Your task to perform on an android device: Open CNN.com Image 0: 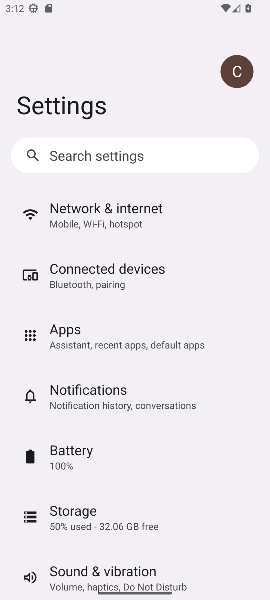
Step 0: press back button
Your task to perform on an android device: Open CNN.com Image 1: 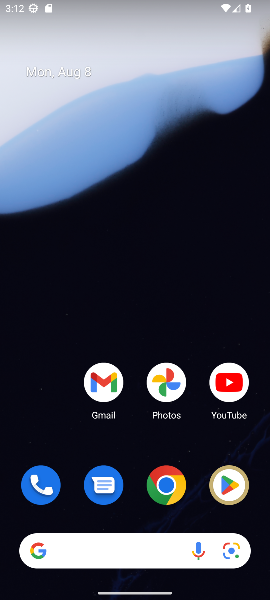
Step 1: drag from (131, 513) to (33, 186)
Your task to perform on an android device: Open CNN.com Image 2: 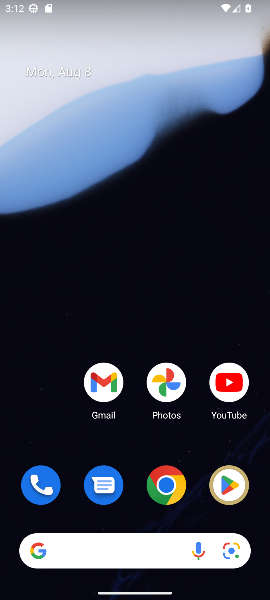
Step 2: drag from (162, 456) to (122, 44)
Your task to perform on an android device: Open CNN.com Image 3: 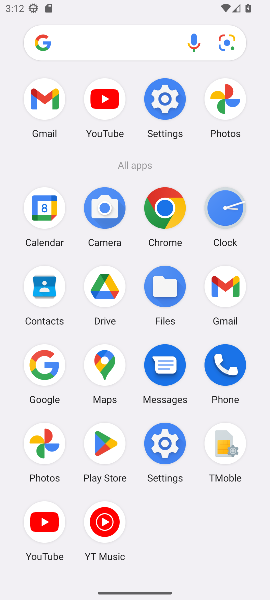
Step 3: click (170, 207)
Your task to perform on an android device: Open CNN.com Image 4: 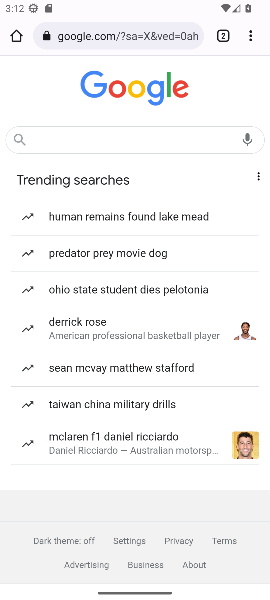
Step 4: click (65, 137)
Your task to perform on an android device: Open CNN.com Image 5: 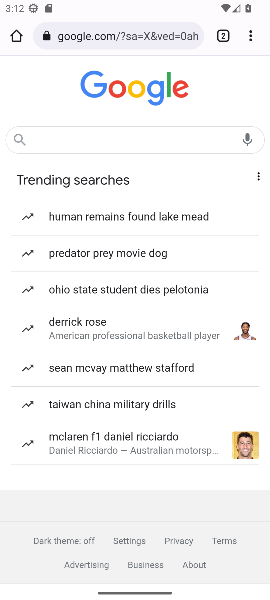
Step 5: click (65, 137)
Your task to perform on an android device: Open CNN.com Image 6: 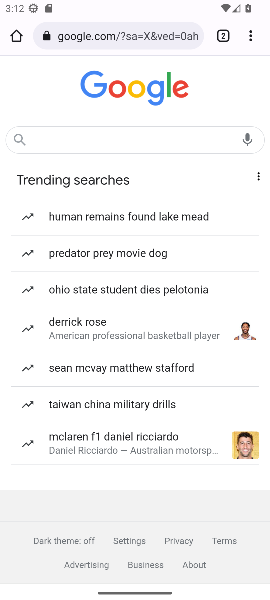
Step 6: click (65, 137)
Your task to perform on an android device: Open CNN.com Image 7: 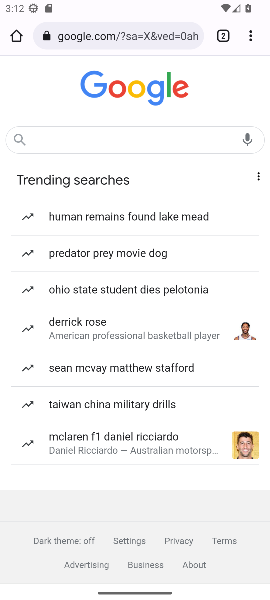
Step 7: click (65, 137)
Your task to perform on an android device: Open CNN.com Image 8: 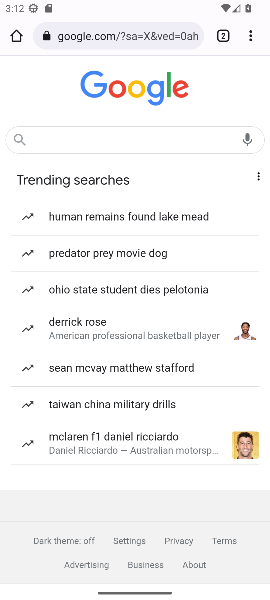
Step 8: click (65, 138)
Your task to perform on an android device: Open CNN.com Image 9: 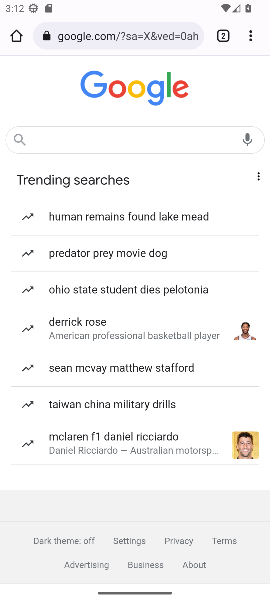
Step 9: click (247, 36)
Your task to perform on an android device: Open CNN.com Image 10: 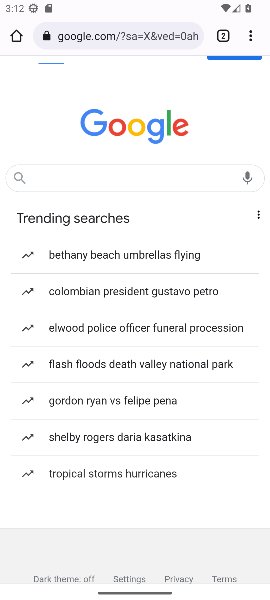
Step 10: click (61, 178)
Your task to perform on an android device: Open CNN.com Image 11: 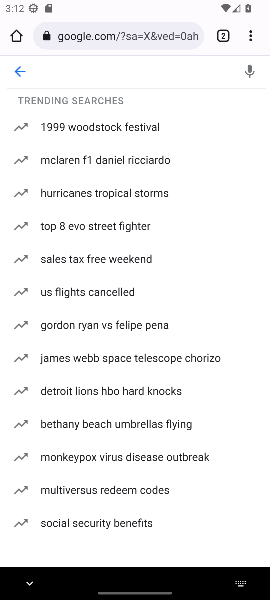
Step 11: drag from (246, 34) to (140, 68)
Your task to perform on an android device: Open CNN.com Image 12: 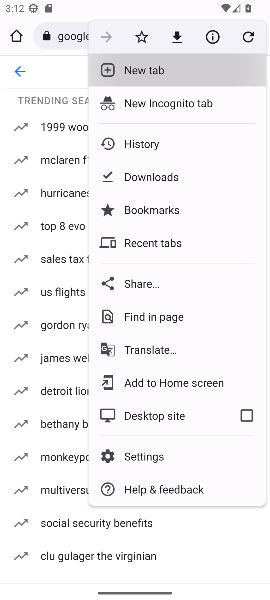
Step 12: click (140, 68)
Your task to perform on an android device: Open CNN.com Image 13: 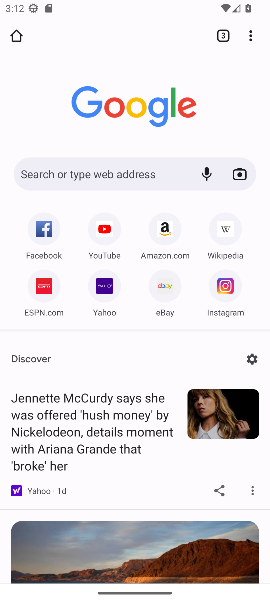
Step 13: click (48, 166)
Your task to perform on an android device: Open CNN.com Image 14: 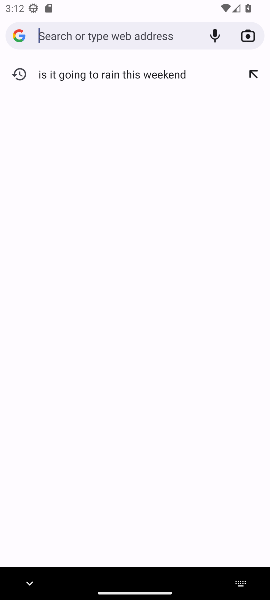
Step 14: type "CNN.com"
Your task to perform on an android device: Open CNN.com Image 15: 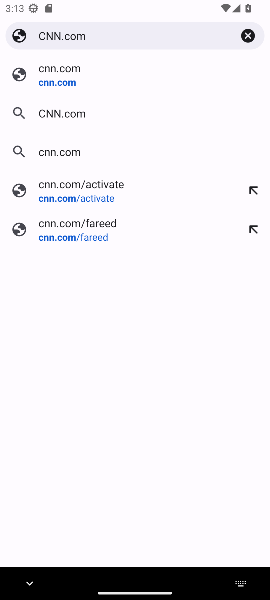
Step 15: click (62, 67)
Your task to perform on an android device: Open CNN.com Image 16: 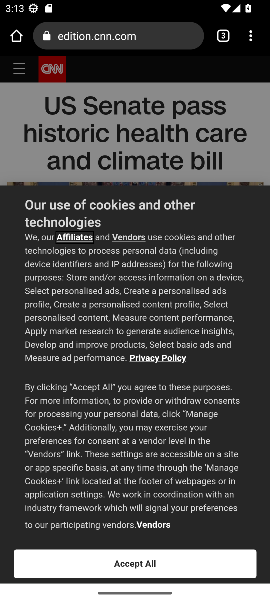
Step 16: task complete